Your task to perform on an android device: see tabs open on other devices in the chrome app Image 0: 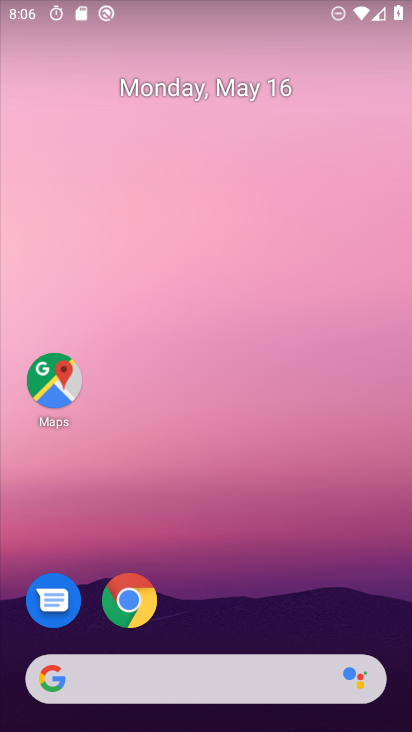
Step 0: drag from (122, 686) to (307, 275)
Your task to perform on an android device: see tabs open on other devices in the chrome app Image 1: 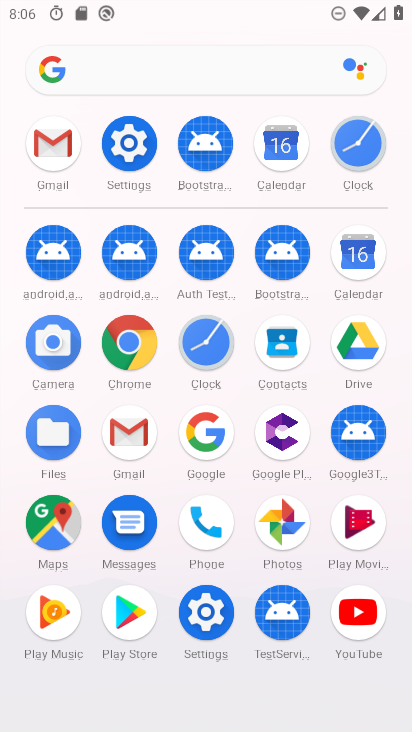
Step 1: click (133, 345)
Your task to perform on an android device: see tabs open on other devices in the chrome app Image 2: 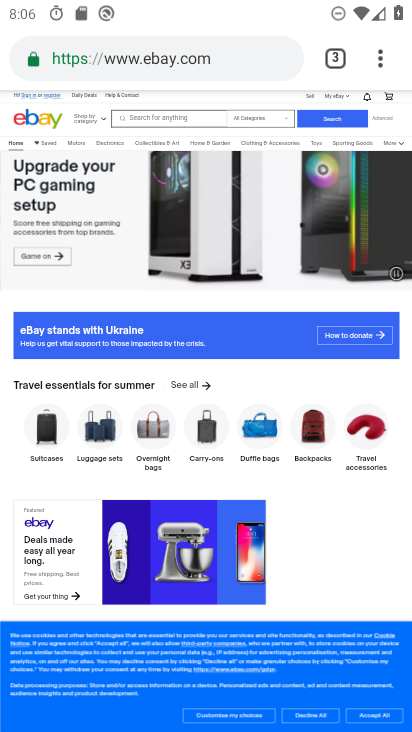
Step 2: task complete